Your task to perform on an android device: turn on the 12-hour format for clock Image 0: 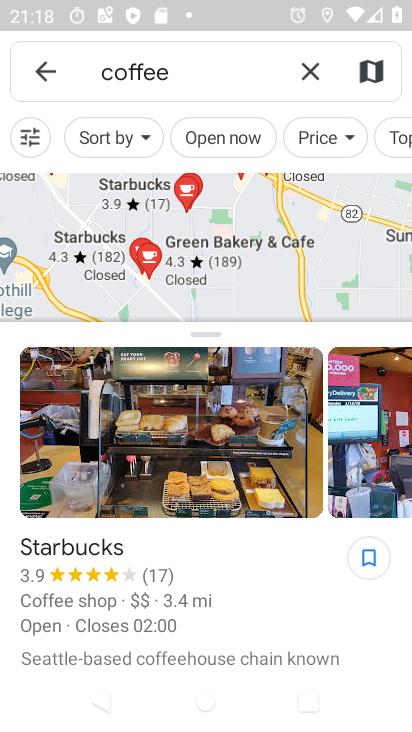
Step 0: press home button
Your task to perform on an android device: turn on the 12-hour format for clock Image 1: 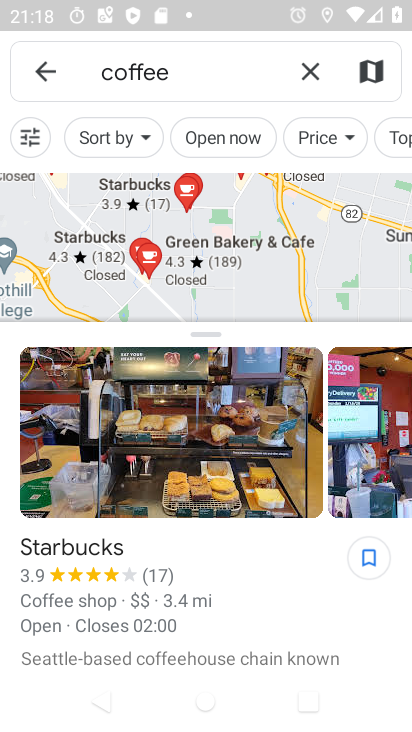
Step 1: press home button
Your task to perform on an android device: turn on the 12-hour format for clock Image 2: 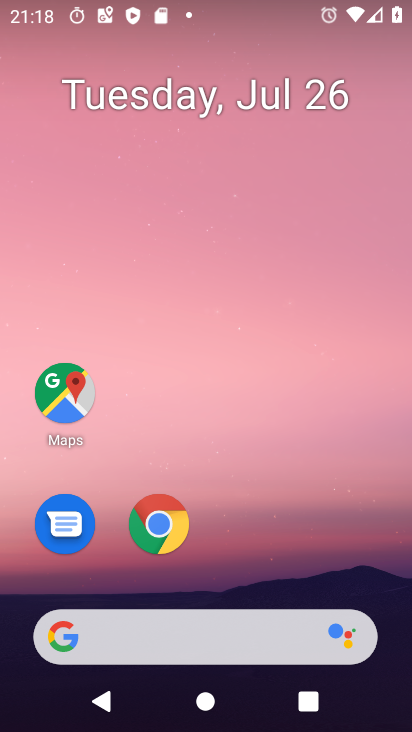
Step 2: drag from (278, 527) to (244, 21)
Your task to perform on an android device: turn on the 12-hour format for clock Image 3: 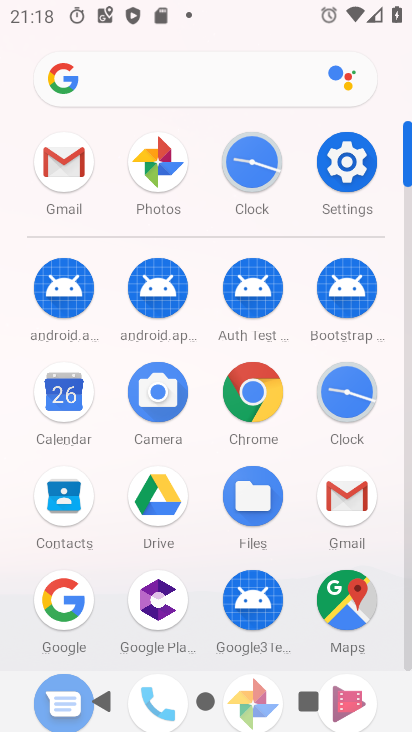
Step 3: click (258, 175)
Your task to perform on an android device: turn on the 12-hour format for clock Image 4: 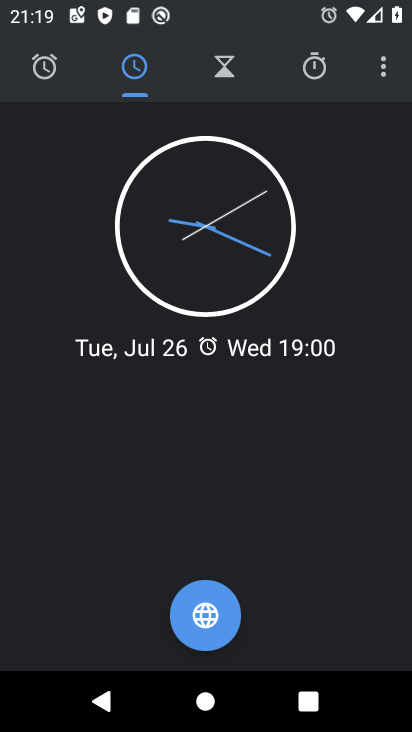
Step 4: click (385, 66)
Your task to perform on an android device: turn on the 12-hour format for clock Image 5: 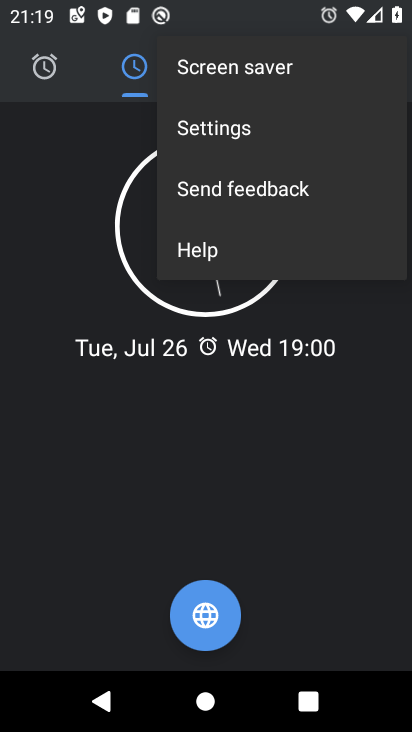
Step 5: click (255, 126)
Your task to perform on an android device: turn on the 12-hour format for clock Image 6: 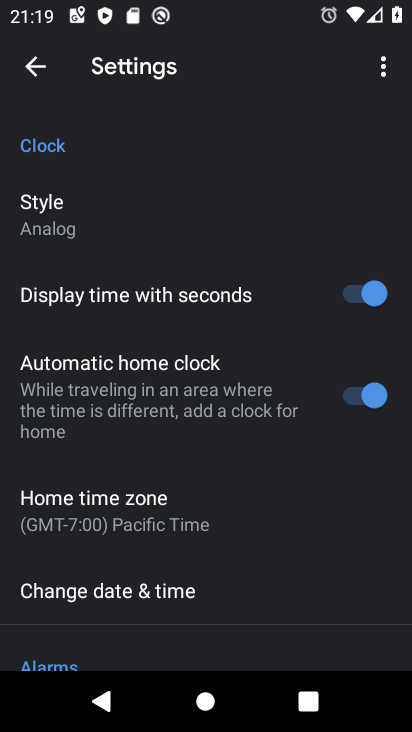
Step 6: drag from (266, 444) to (294, 1)
Your task to perform on an android device: turn on the 12-hour format for clock Image 7: 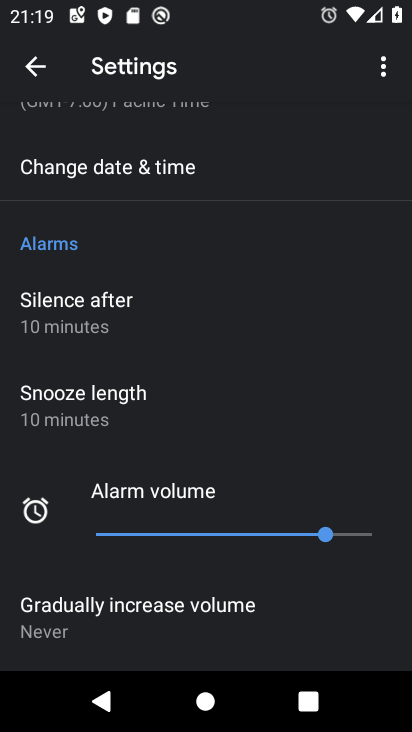
Step 7: click (259, 170)
Your task to perform on an android device: turn on the 12-hour format for clock Image 8: 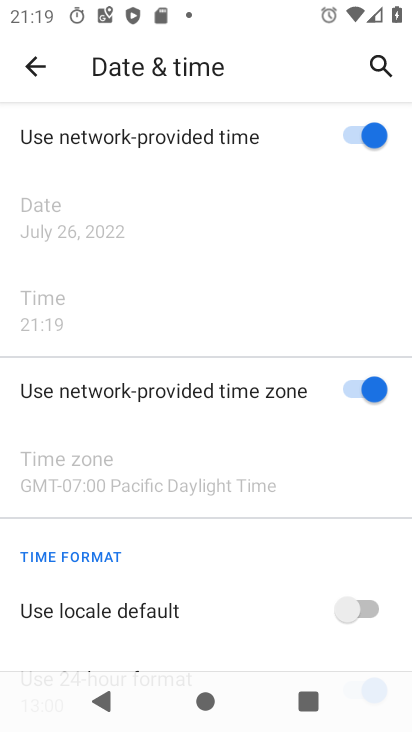
Step 8: drag from (250, 533) to (262, 229)
Your task to perform on an android device: turn on the 12-hour format for clock Image 9: 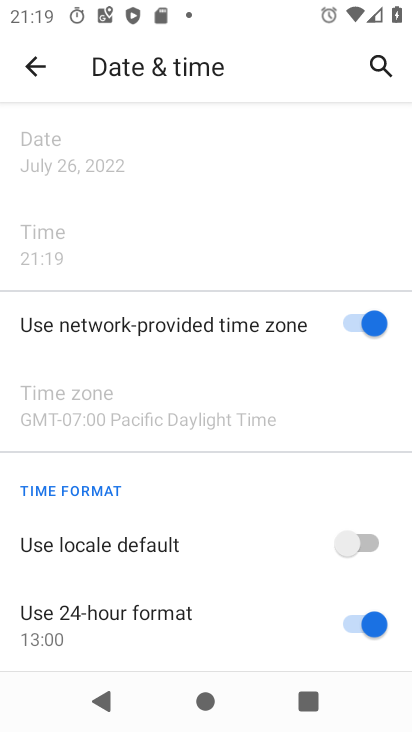
Step 9: click (348, 530)
Your task to perform on an android device: turn on the 12-hour format for clock Image 10: 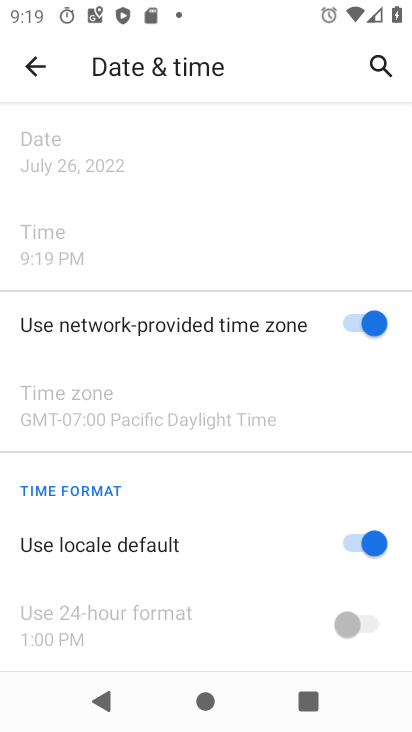
Step 10: task complete